Your task to perform on an android device: uninstall "ZOOM Cloud Meetings" Image 0: 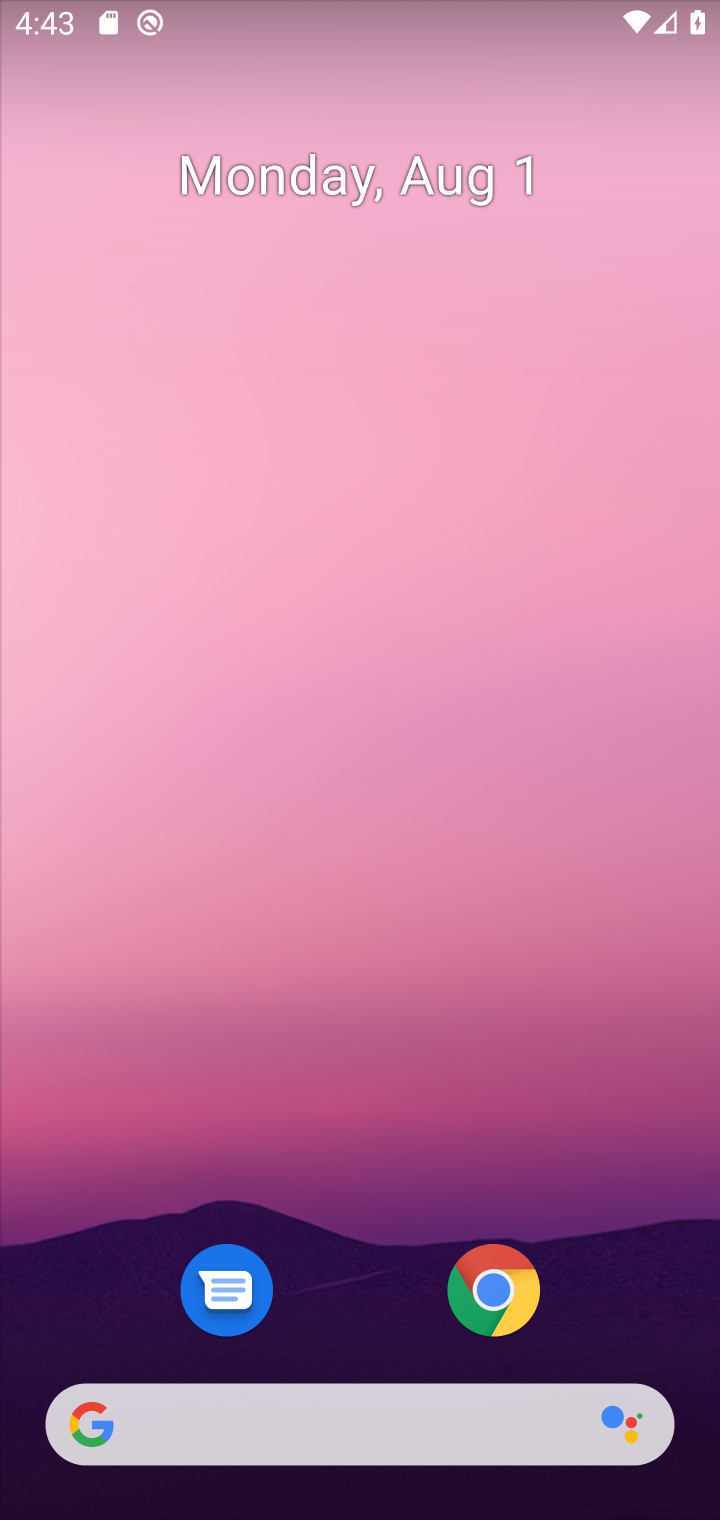
Step 0: drag from (341, 769) to (341, 44)
Your task to perform on an android device: uninstall "ZOOM Cloud Meetings" Image 1: 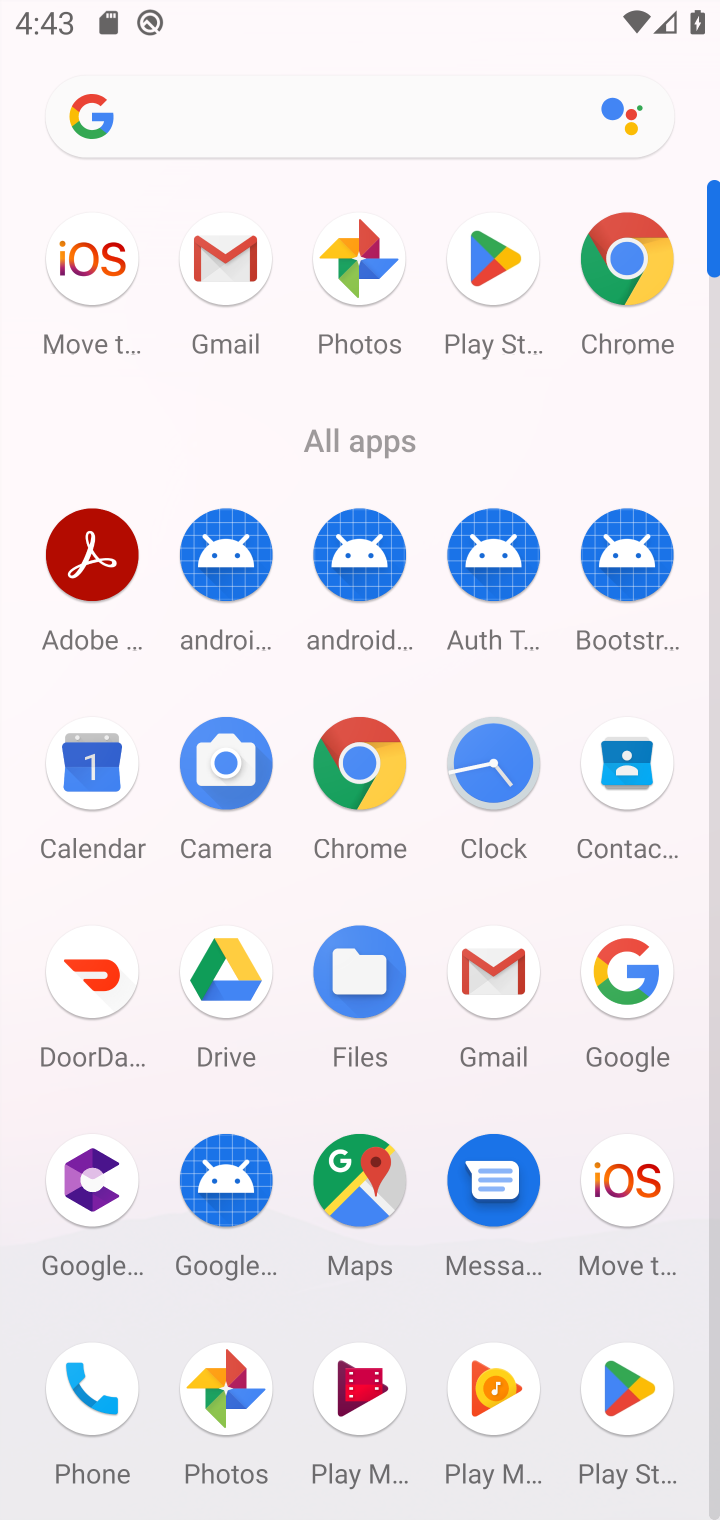
Step 1: drag from (557, 1098) to (572, 677)
Your task to perform on an android device: uninstall "ZOOM Cloud Meetings" Image 2: 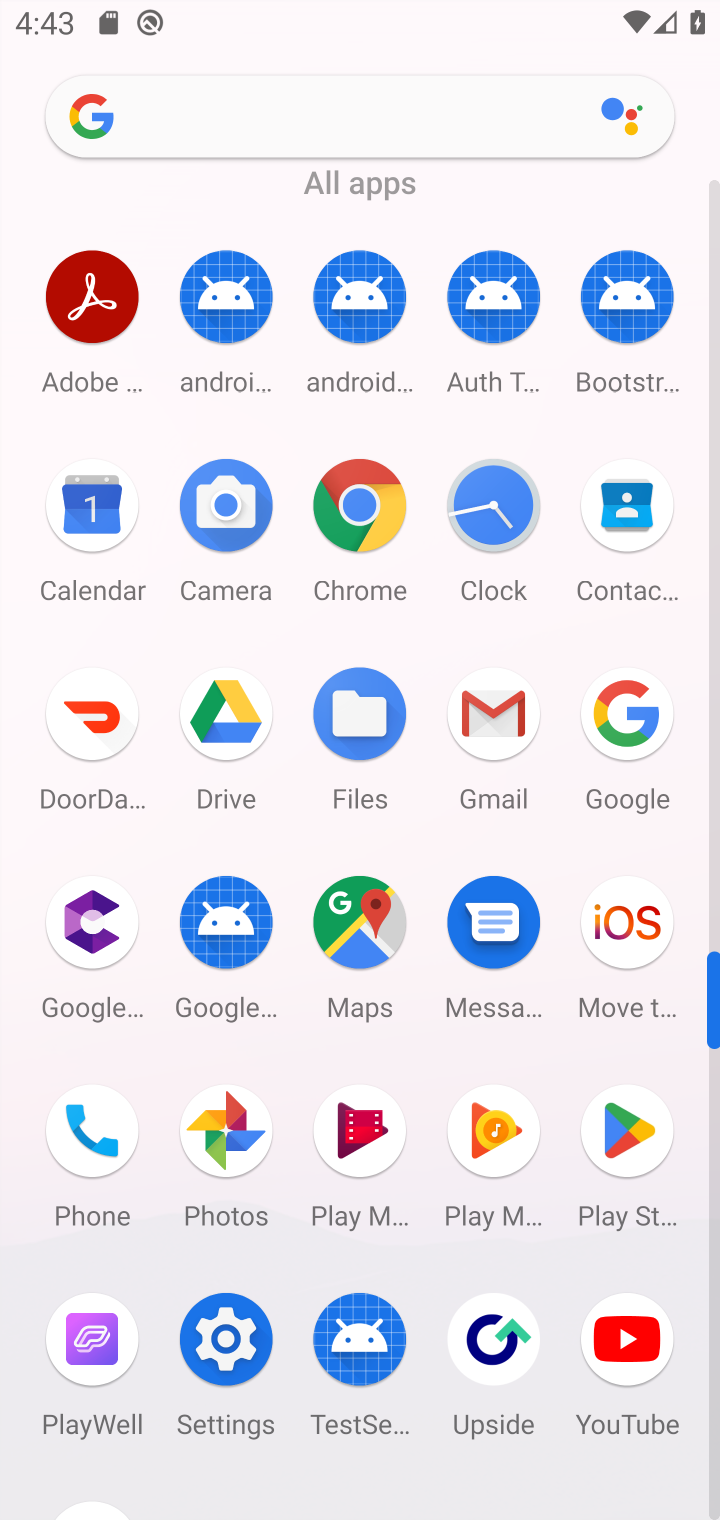
Step 2: click (201, 1317)
Your task to perform on an android device: uninstall "ZOOM Cloud Meetings" Image 3: 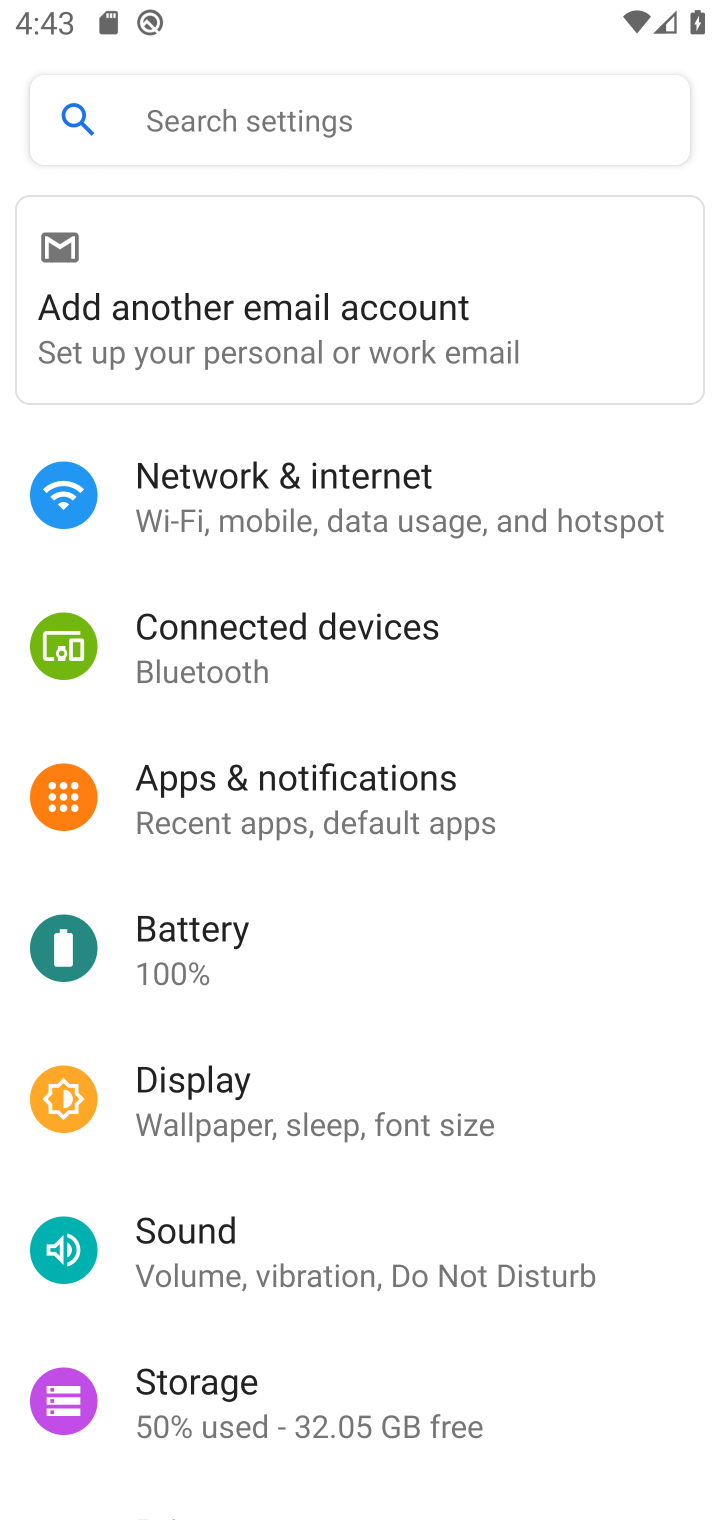
Step 3: press home button
Your task to perform on an android device: uninstall "ZOOM Cloud Meetings" Image 4: 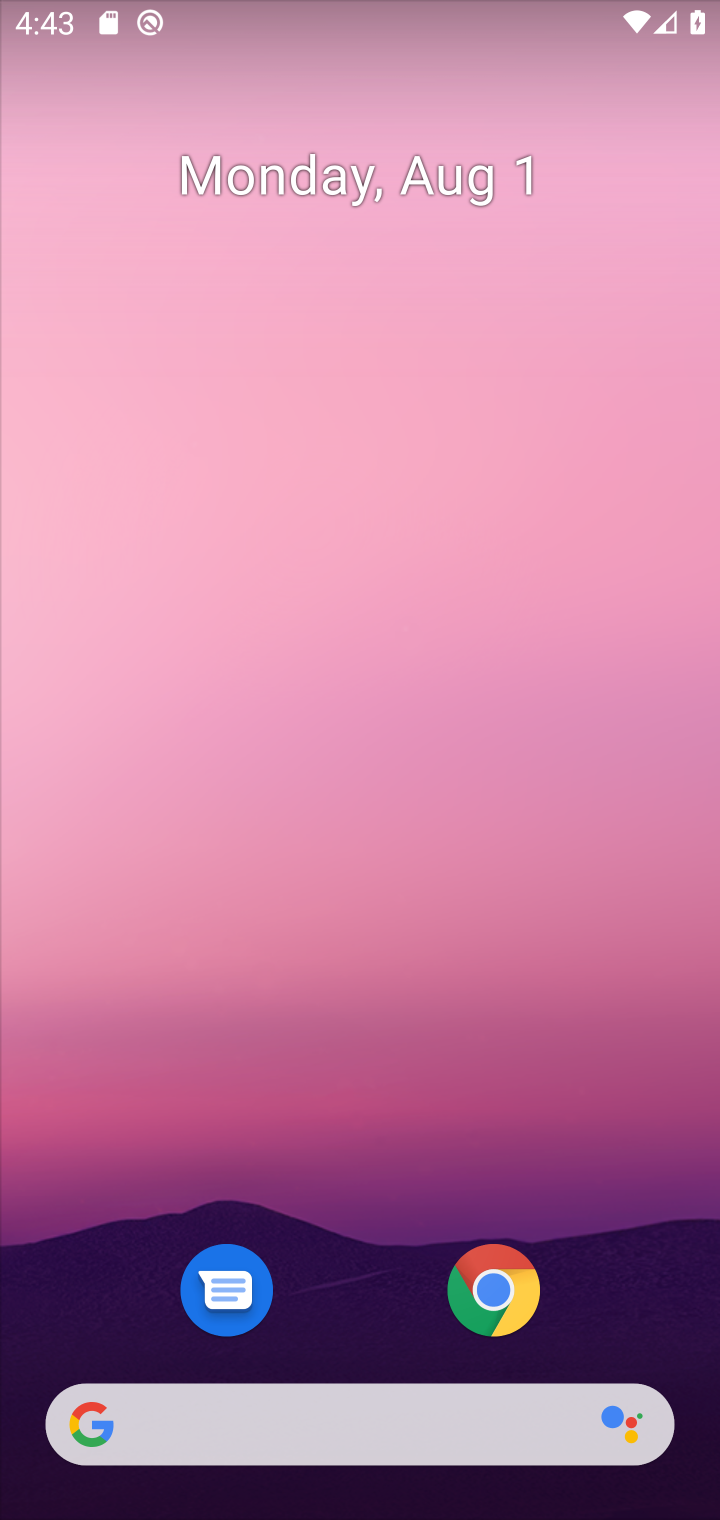
Step 4: drag from (426, 1442) to (464, 59)
Your task to perform on an android device: uninstall "ZOOM Cloud Meetings" Image 5: 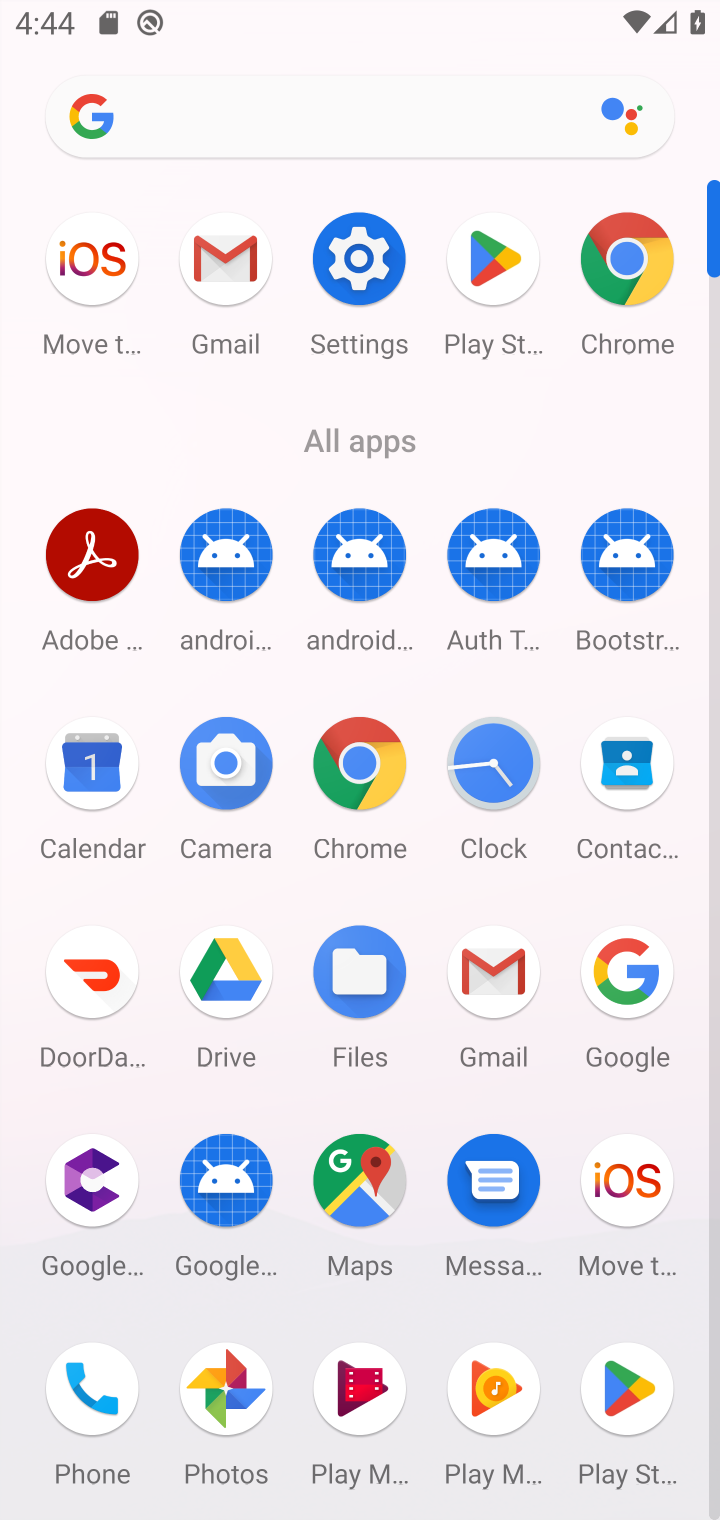
Step 5: drag from (548, 1284) to (541, 785)
Your task to perform on an android device: uninstall "ZOOM Cloud Meetings" Image 6: 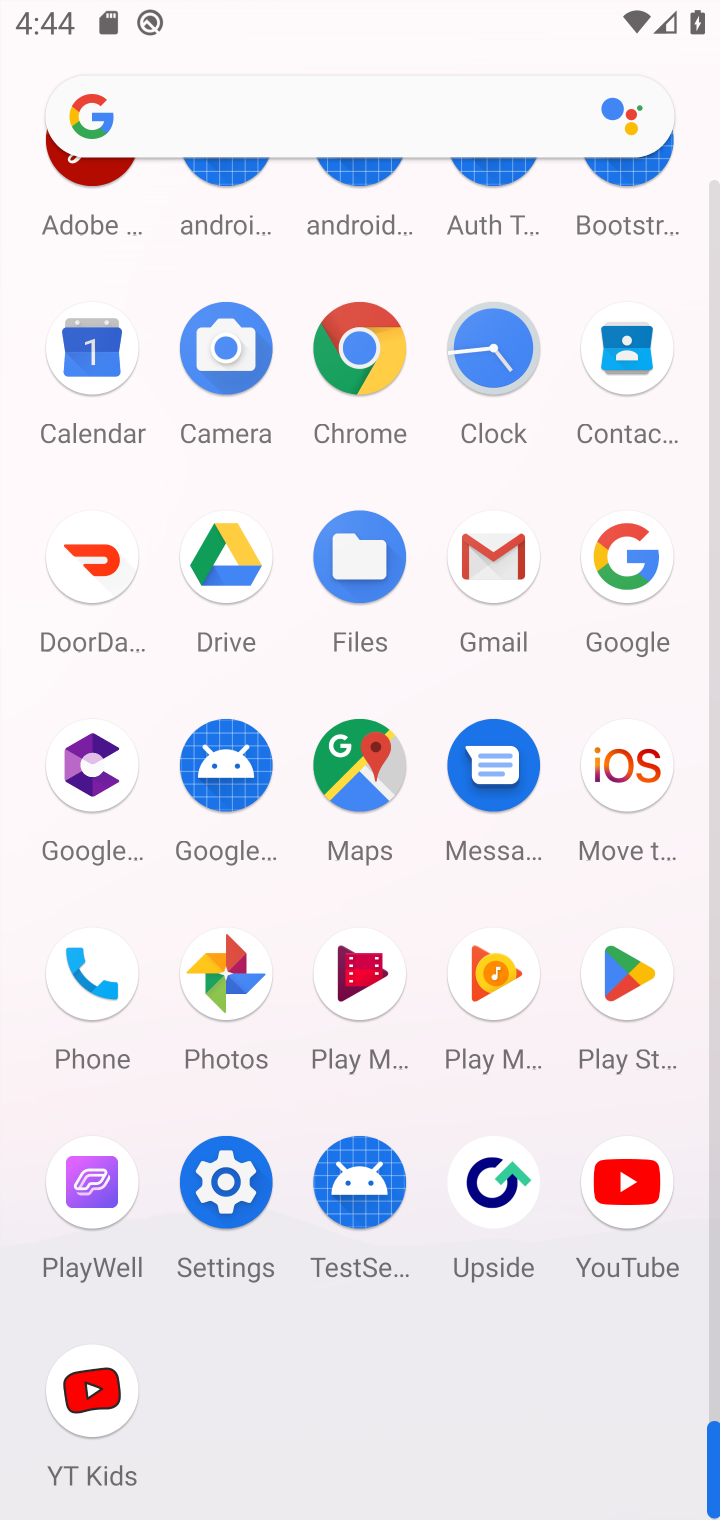
Step 6: click (616, 963)
Your task to perform on an android device: uninstall "ZOOM Cloud Meetings" Image 7: 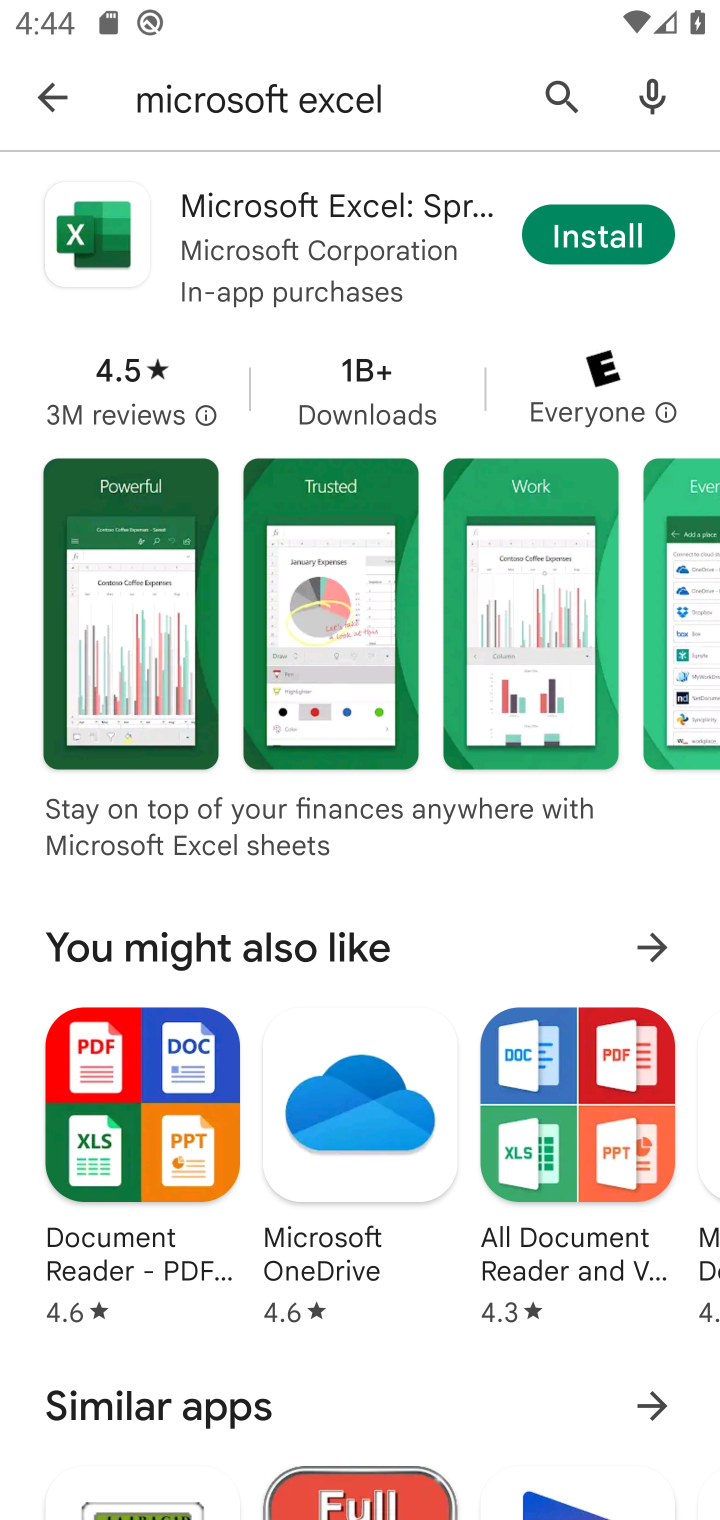
Step 7: click (573, 88)
Your task to perform on an android device: uninstall "ZOOM Cloud Meetings" Image 8: 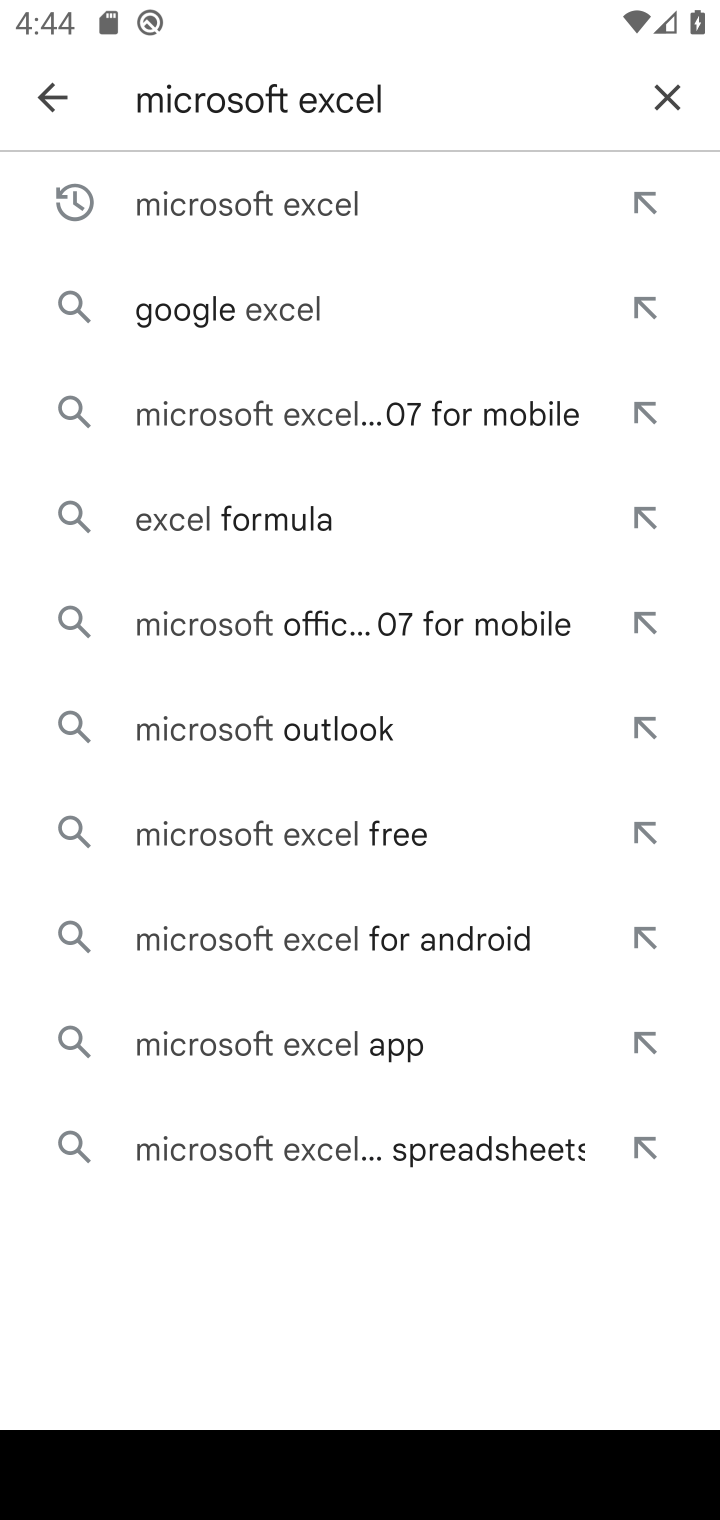
Step 8: click (667, 91)
Your task to perform on an android device: uninstall "ZOOM Cloud Meetings" Image 9: 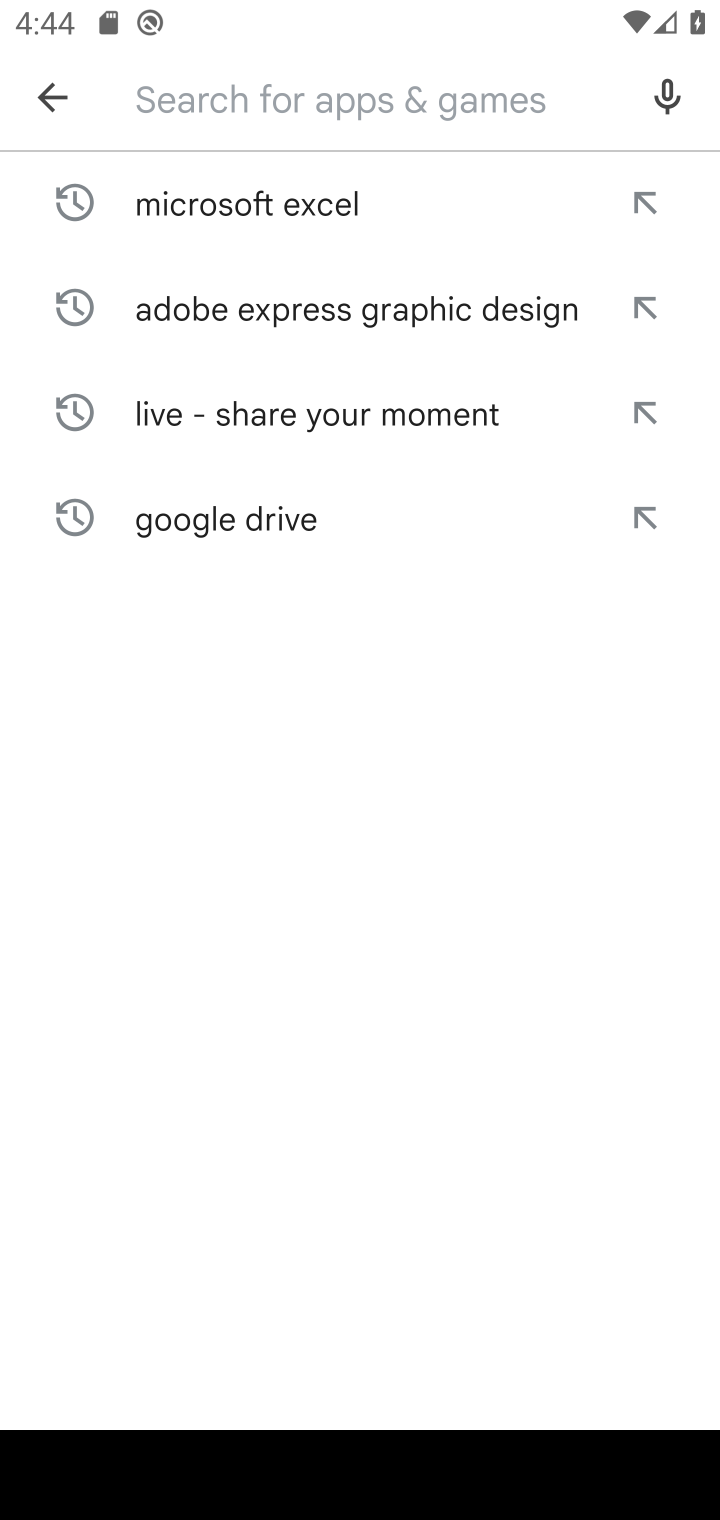
Step 9: type "zoom cloud meetings"
Your task to perform on an android device: uninstall "ZOOM Cloud Meetings" Image 10: 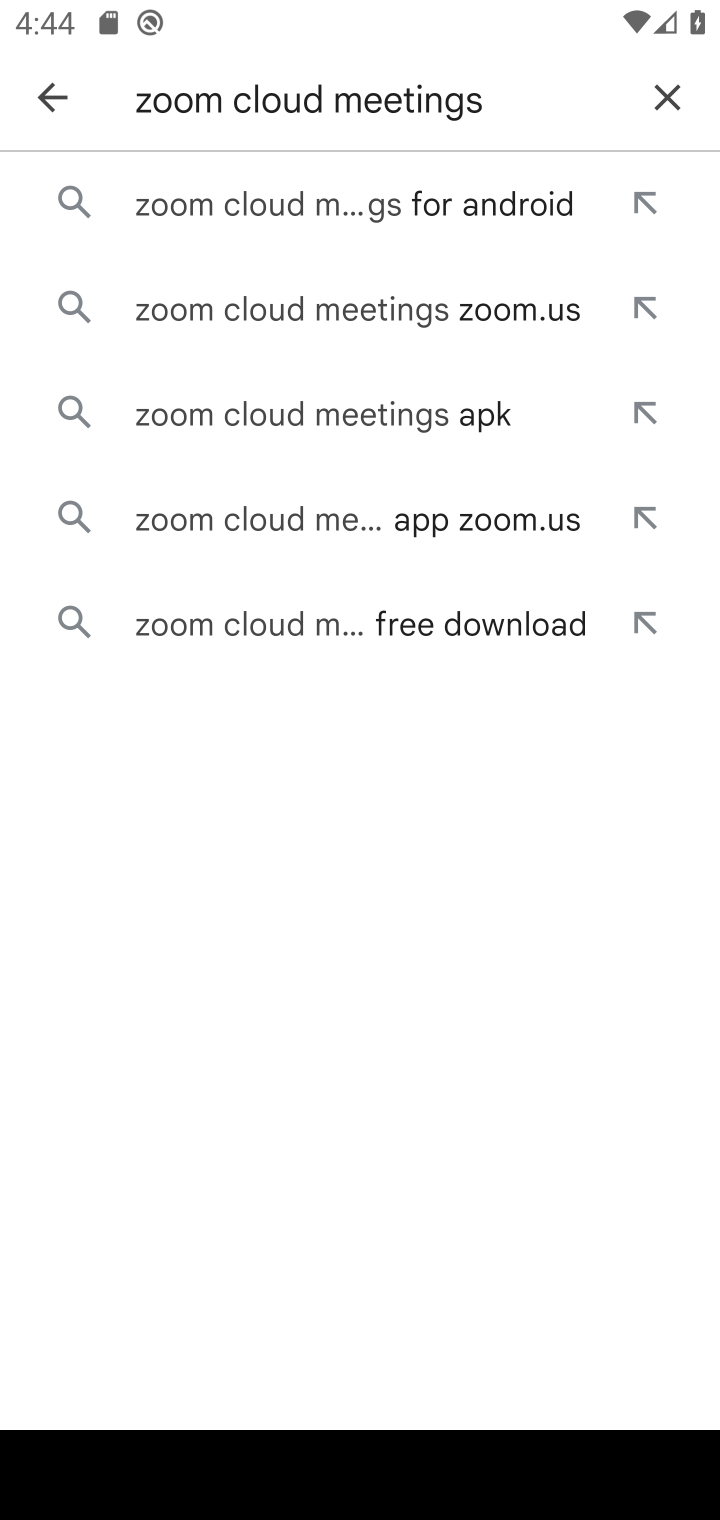
Step 10: click (311, 204)
Your task to perform on an android device: uninstall "ZOOM Cloud Meetings" Image 11: 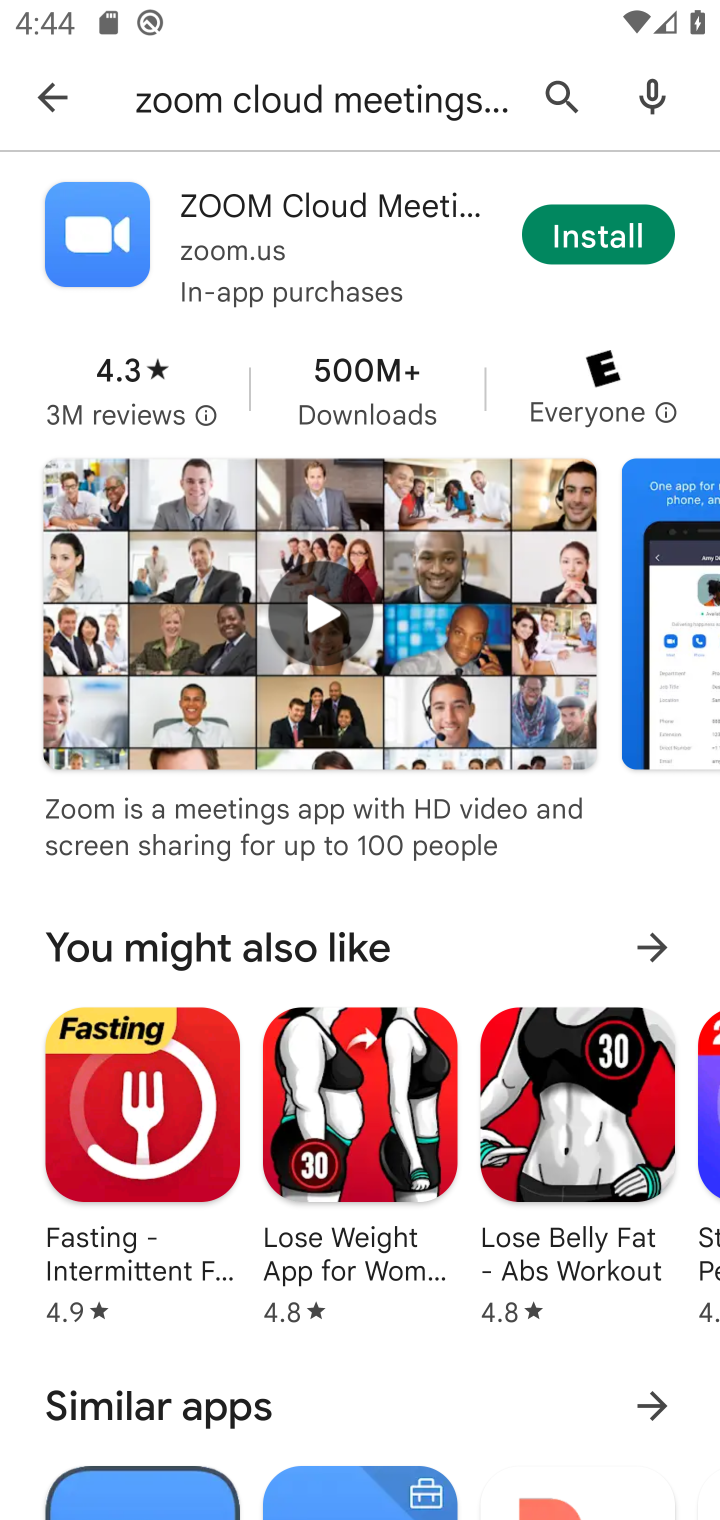
Step 11: task complete